Your task to perform on an android device: Go to ESPN.com Image 0: 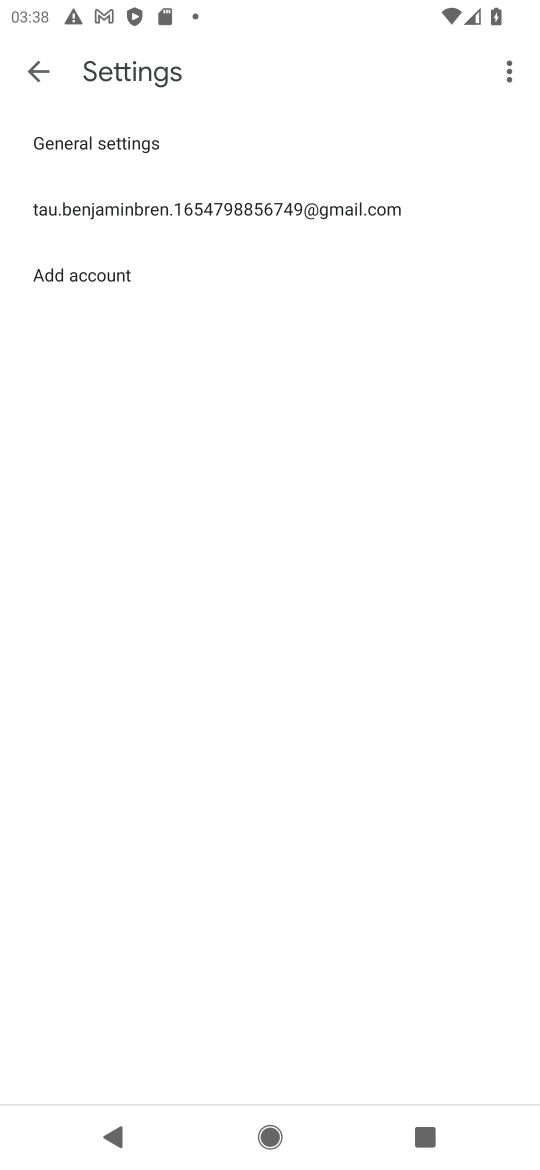
Step 0: press home button
Your task to perform on an android device: Go to ESPN.com Image 1: 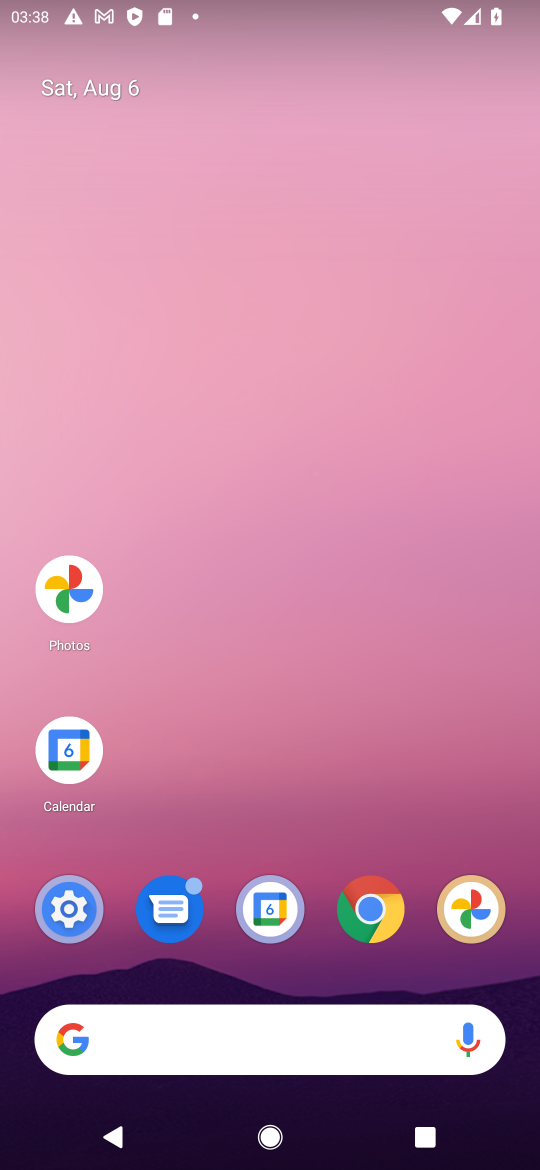
Step 1: click (377, 909)
Your task to perform on an android device: Go to ESPN.com Image 2: 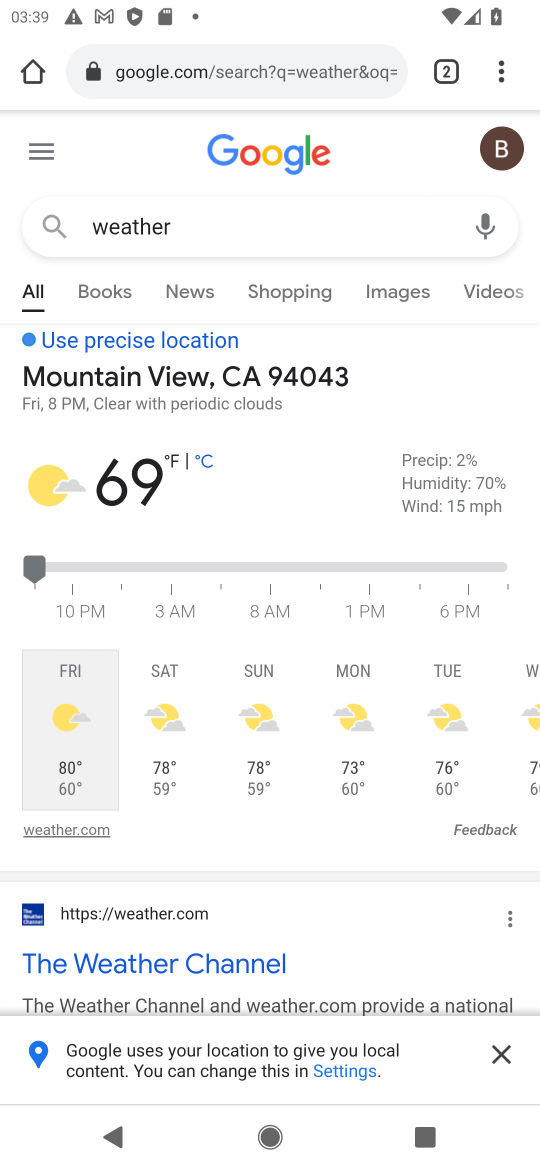
Step 2: click (493, 63)
Your task to perform on an android device: Go to ESPN.com Image 3: 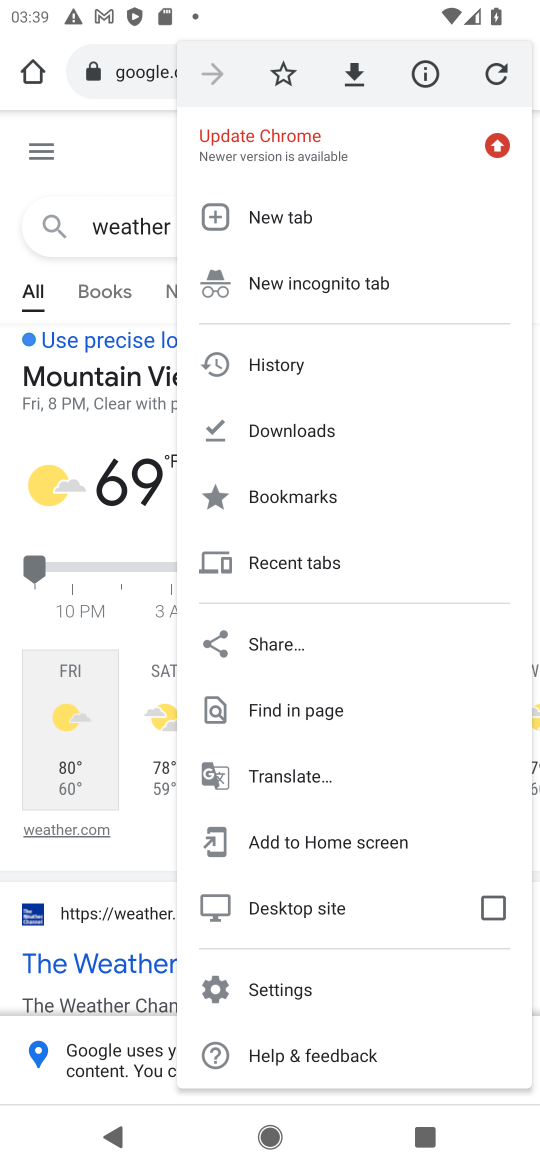
Step 3: click (274, 215)
Your task to perform on an android device: Go to ESPN.com Image 4: 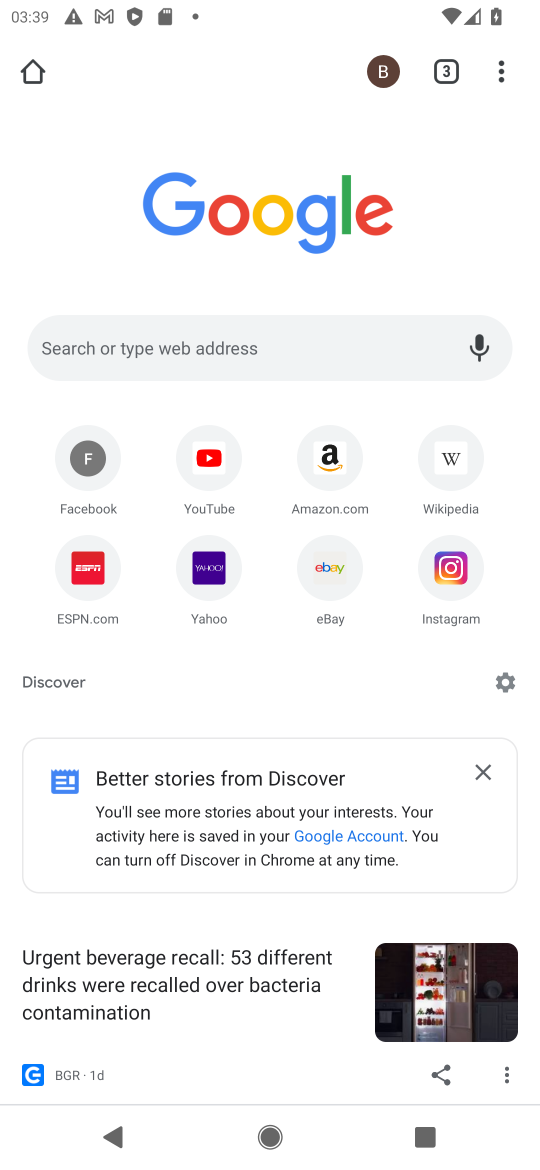
Step 4: click (95, 563)
Your task to perform on an android device: Go to ESPN.com Image 5: 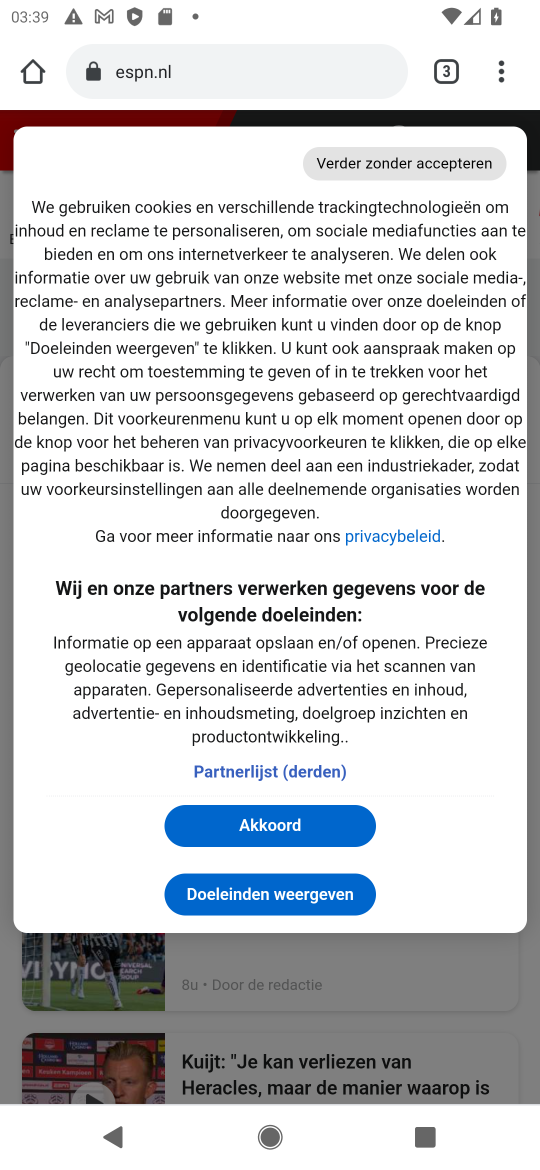
Step 5: click (219, 821)
Your task to perform on an android device: Go to ESPN.com Image 6: 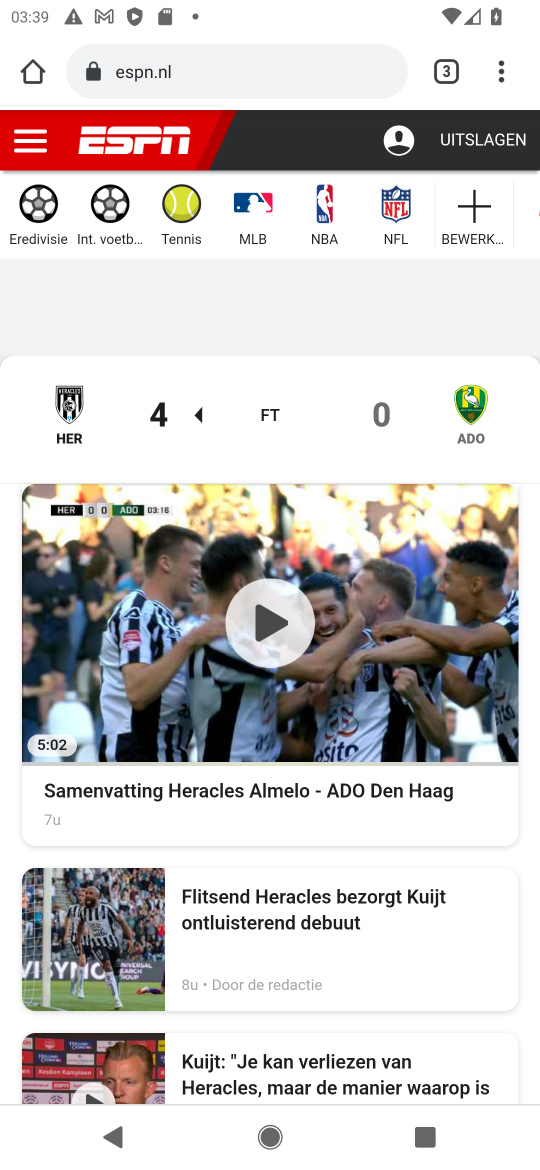
Step 6: task complete